Your task to perform on an android device: turn on wifi Image 0: 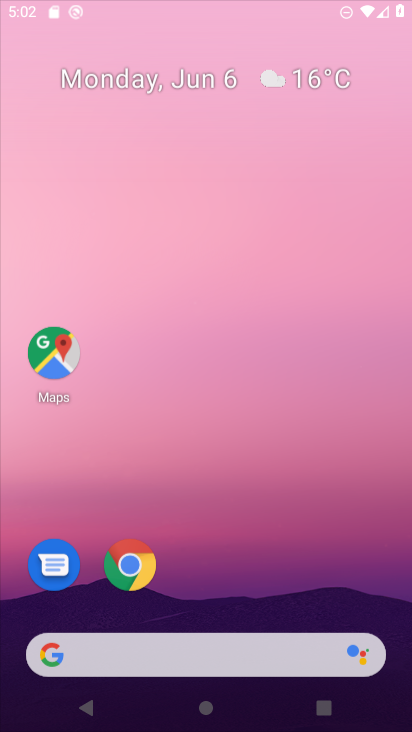
Step 0: drag from (183, 51) to (171, 13)
Your task to perform on an android device: turn on wifi Image 1: 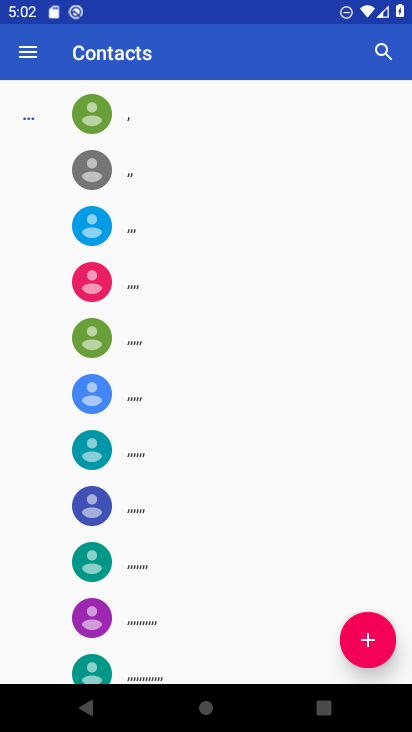
Step 1: press back button
Your task to perform on an android device: turn on wifi Image 2: 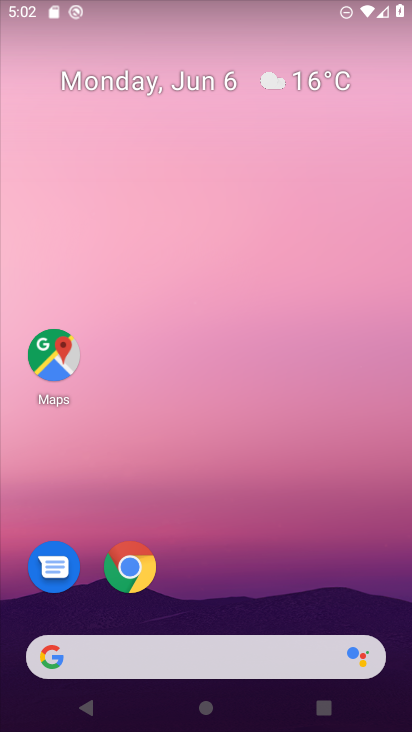
Step 2: drag from (267, 683) to (151, 173)
Your task to perform on an android device: turn on wifi Image 3: 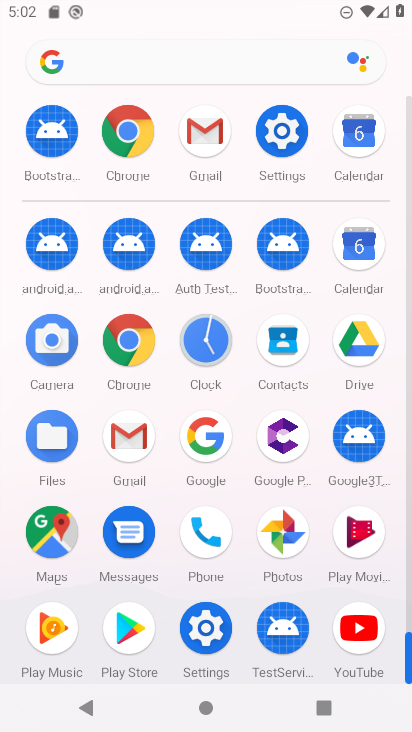
Step 3: click (295, 127)
Your task to perform on an android device: turn on wifi Image 4: 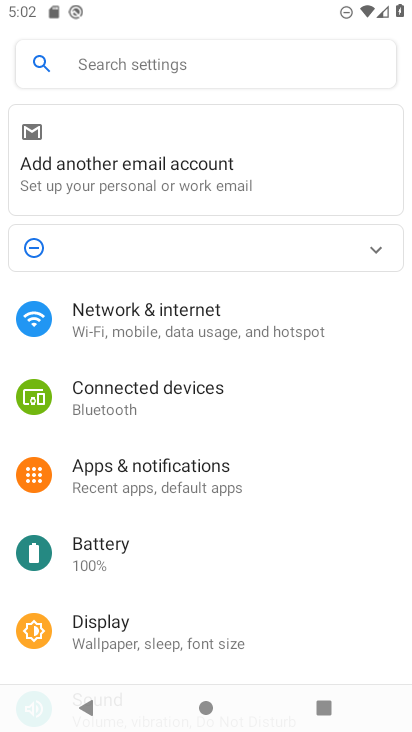
Step 4: click (137, 327)
Your task to perform on an android device: turn on wifi Image 5: 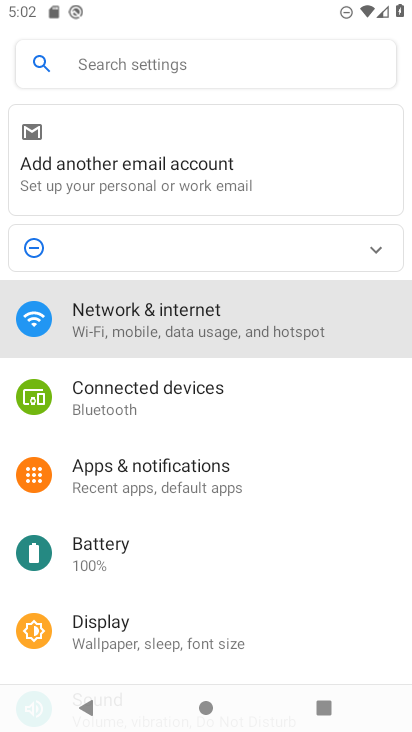
Step 5: click (134, 327)
Your task to perform on an android device: turn on wifi Image 6: 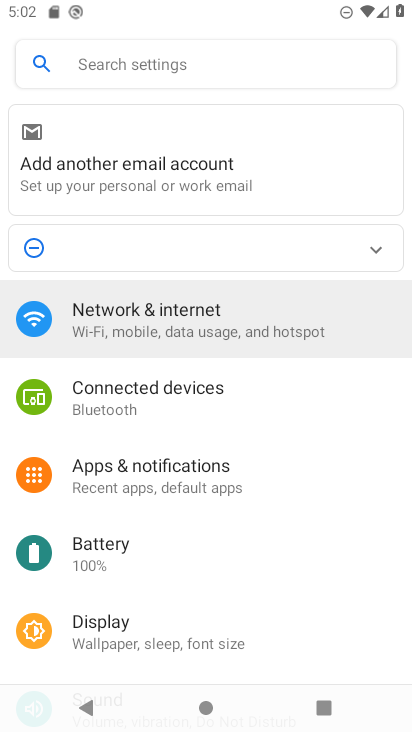
Step 6: click (131, 329)
Your task to perform on an android device: turn on wifi Image 7: 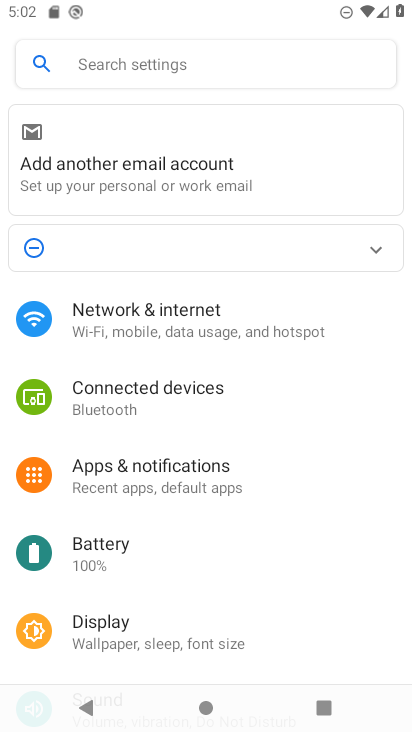
Step 7: click (135, 331)
Your task to perform on an android device: turn on wifi Image 8: 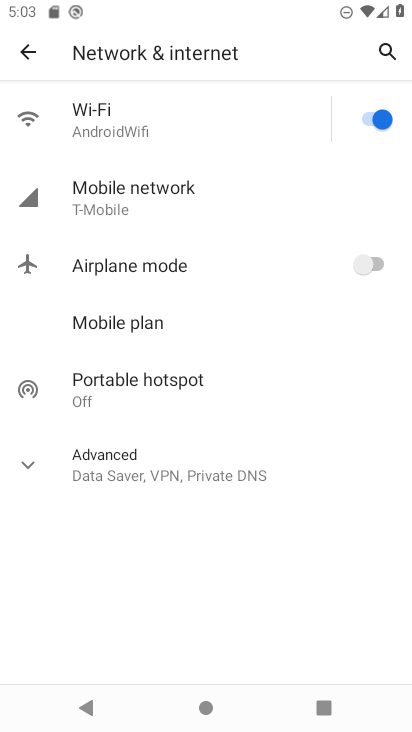
Step 8: task complete